Your task to perform on an android device: turn on improve location accuracy Image 0: 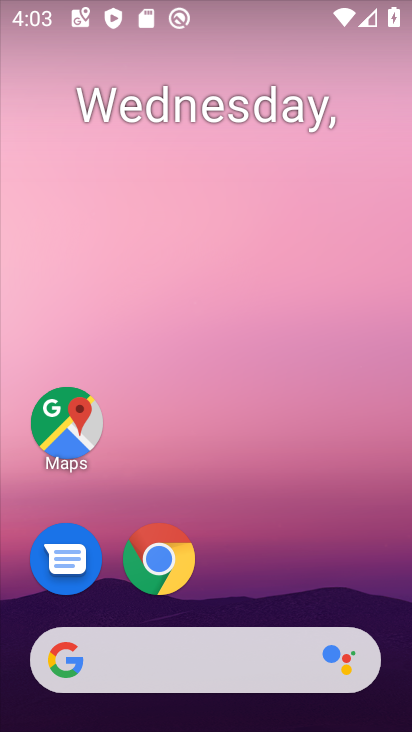
Step 0: drag from (245, 497) to (126, 7)
Your task to perform on an android device: turn on improve location accuracy Image 1: 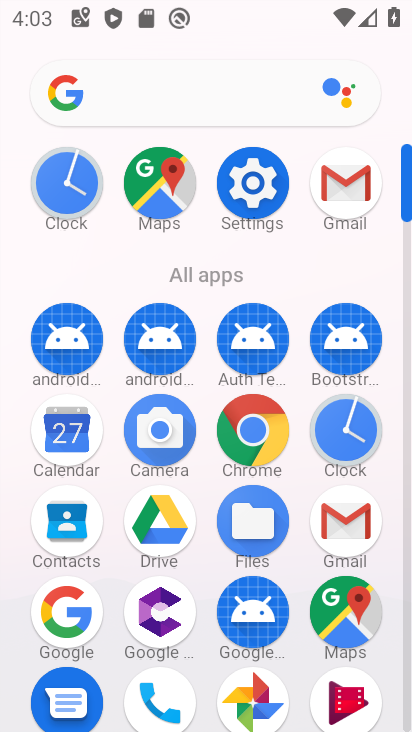
Step 1: click (249, 186)
Your task to perform on an android device: turn on improve location accuracy Image 2: 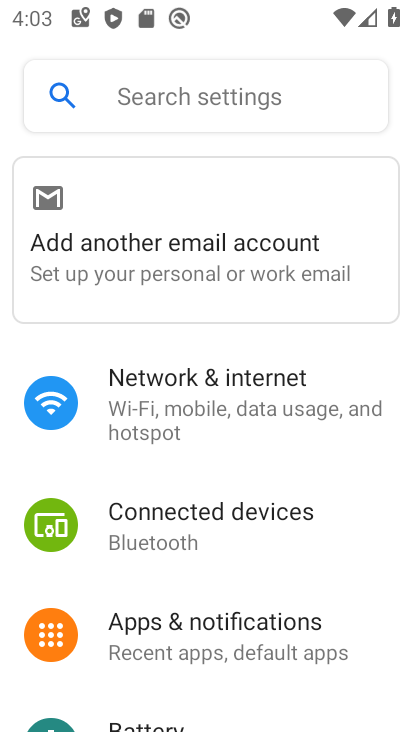
Step 2: drag from (197, 638) to (279, 145)
Your task to perform on an android device: turn on improve location accuracy Image 3: 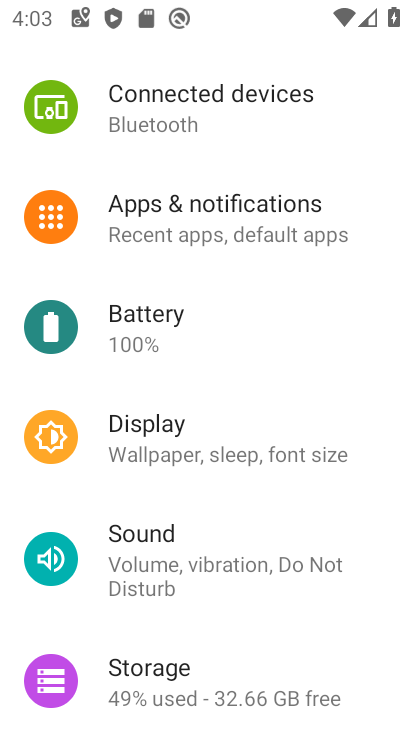
Step 3: drag from (194, 667) to (268, 139)
Your task to perform on an android device: turn on improve location accuracy Image 4: 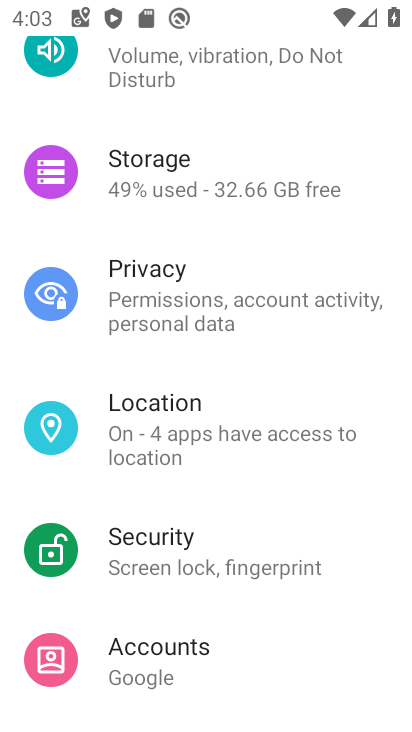
Step 4: click (156, 411)
Your task to perform on an android device: turn on improve location accuracy Image 5: 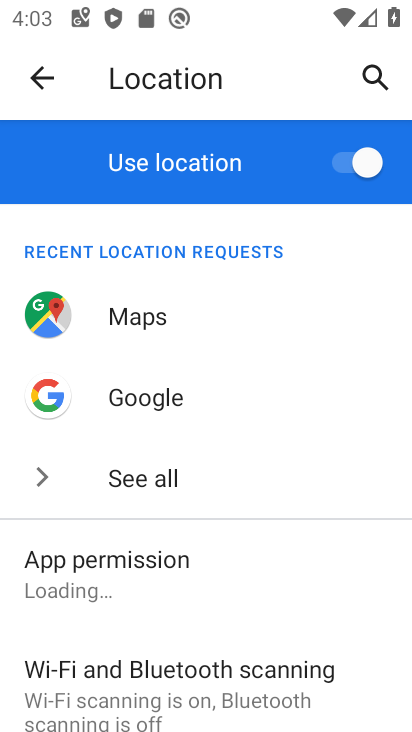
Step 5: drag from (123, 649) to (205, 179)
Your task to perform on an android device: turn on improve location accuracy Image 6: 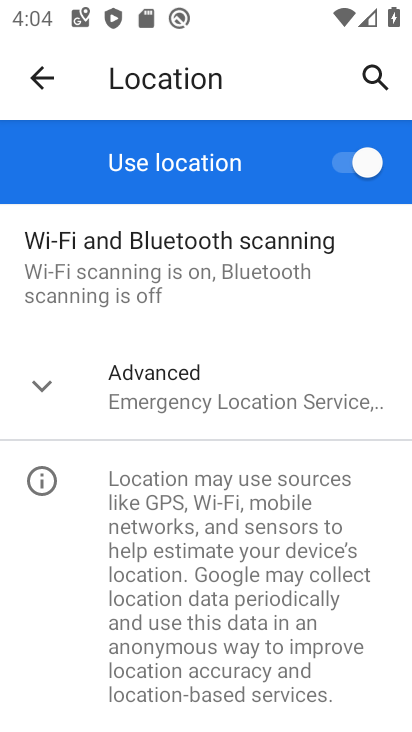
Step 6: click (182, 405)
Your task to perform on an android device: turn on improve location accuracy Image 7: 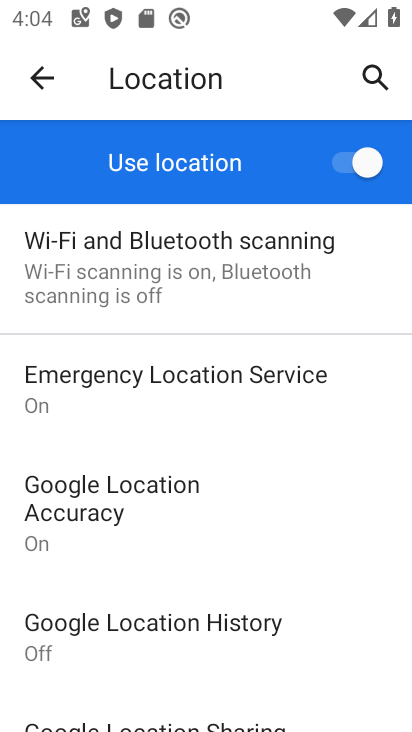
Step 7: click (154, 492)
Your task to perform on an android device: turn on improve location accuracy Image 8: 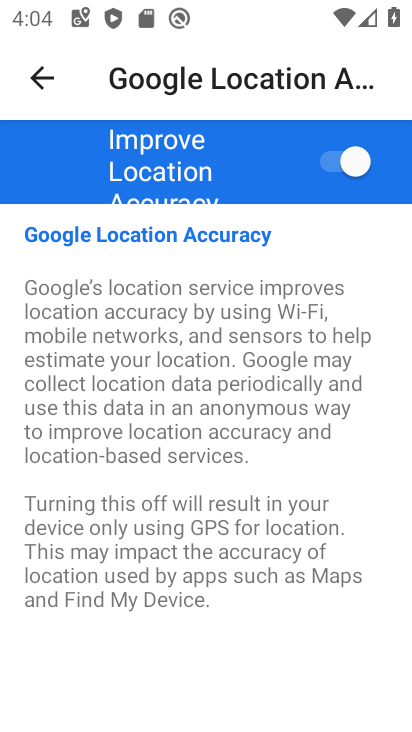
Step 8: task complete